Your task to perform on an android device: Is it going to rain tomorrow? Image 0: 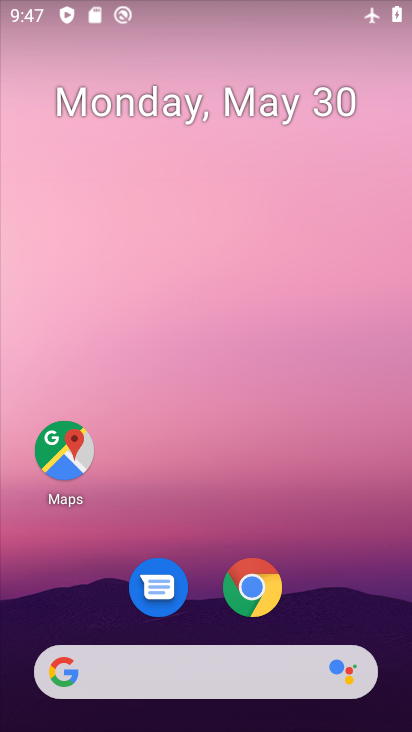
Step 0: drag from (312, 574) to (265, 15)
Your task to perform on an android device: Is it going to rain tomorrow? Image 1: 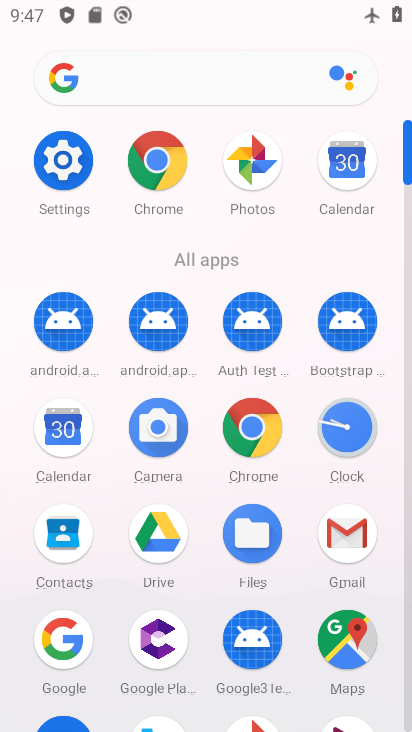
Step 1: drag from (11, 531) to (31, 214)
Your task to perform on an android device: Is it going to rain tomorrow? Image 2: 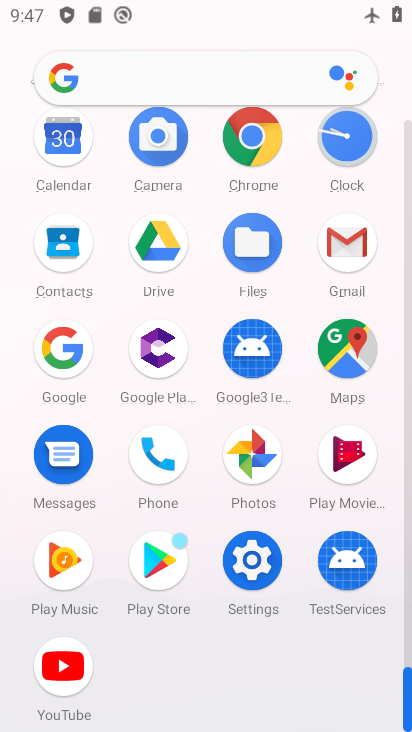
Step 2: click (251, 133)
Your task to perform on an android device: Is it going to rain tomorrow? Image 3: 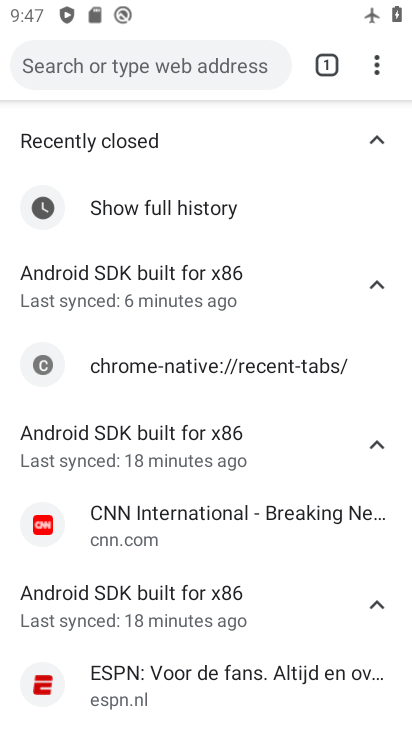
Step 3: click (183, 59)
Your task to perform on an android device: Is it going to rain tomorrow? Image 4: 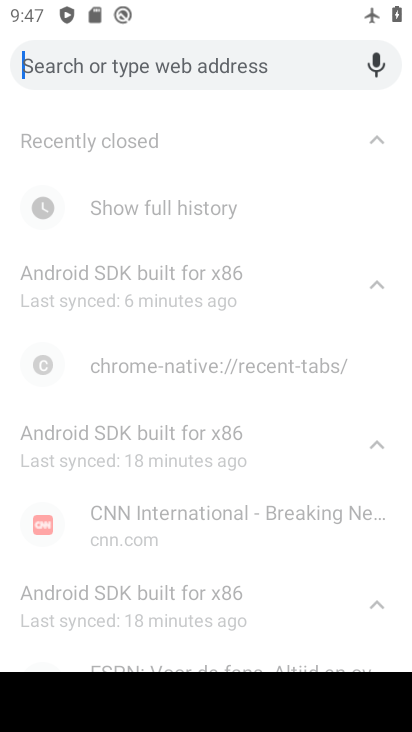
Step 4: type "Is it going to rain tomorrow?"
Your task to perform on an android device: Is it going to rain tomorrow? Image 5: 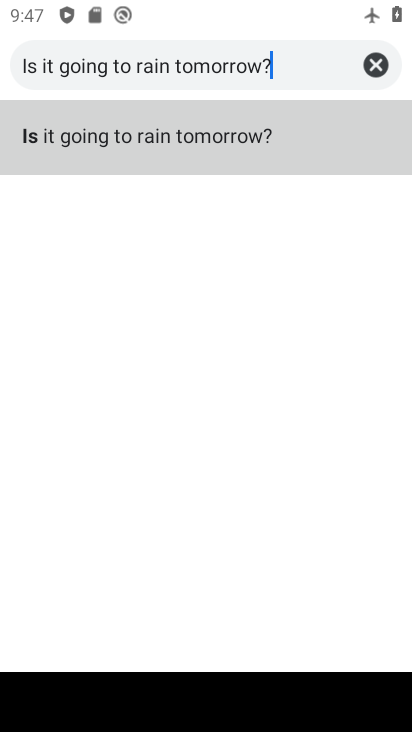
Step 5: type ""
Your task to perform on an android device: Is it going to rain tomorrow? Image 6: 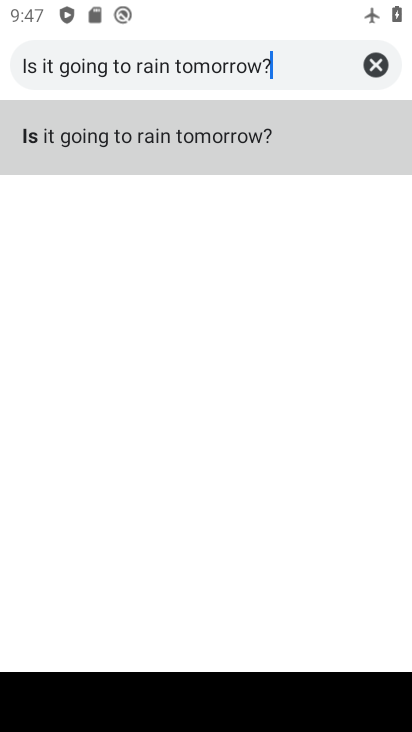
Step 6: click (108, 118)
Your task to perform on an android device: Is it going to rain tomorrow? Image 7: 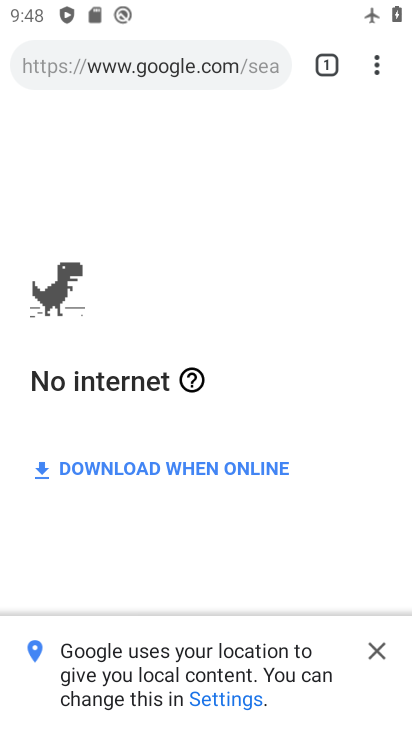
Step 7: task complete